Your task to perform on an android device: change the clock style Image 0: 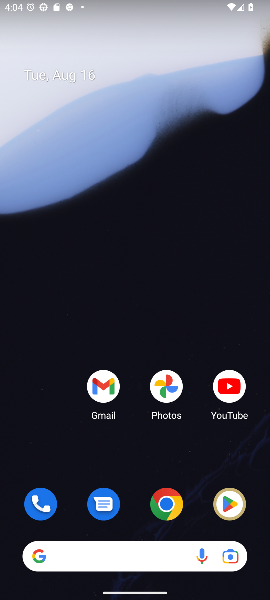
Step 0: drag from (143, 487) to (139, 284)
Your task to perform on an android device: change the clock style Image 1: 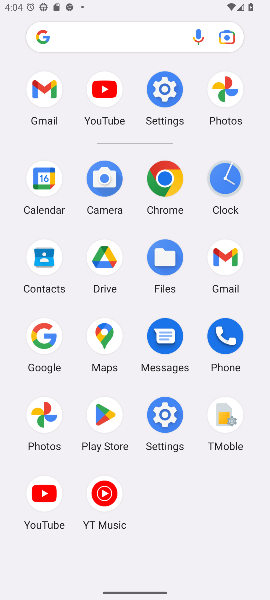
Step 1: click (225, 179)
Your task to perform on an android device: change the clock style Image 2: 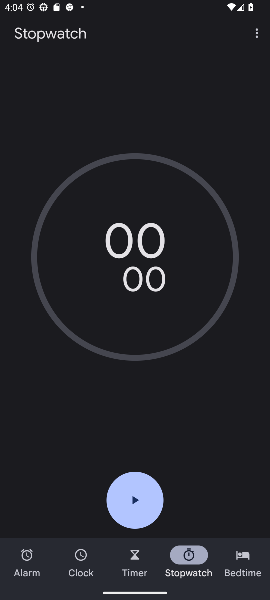
Step 2: click (260, 33)
Your task to perform on an android device: change the clock style Image 3: 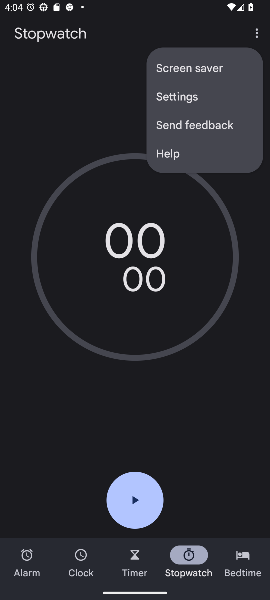
Step 3: click (184, 99)
Your task to perform on an android device: change the clock style Image 4: 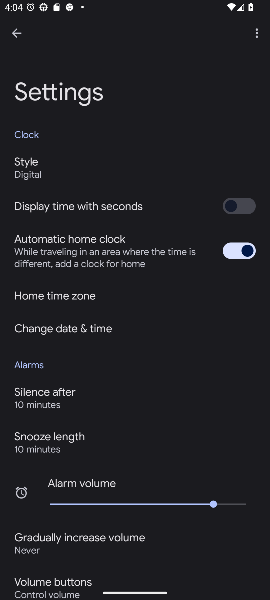
Step 4: click (37, 165)
Your task to perform on an android device: change the clock style Image 5: 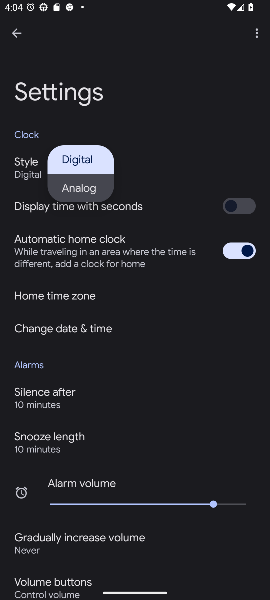
Step 5: click (65, 183)
Your task to perform on an android device: change the clock style Image 6: 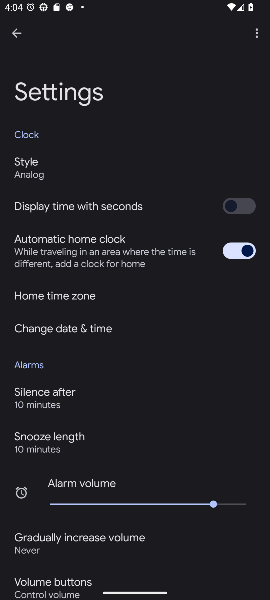
Step 6: task complete